Your task to perform on an android device: open app "Facebook Lite" (install if not already installed) and enter user name: "suppers@inbox.com" and password: "downplayed" Image 0: 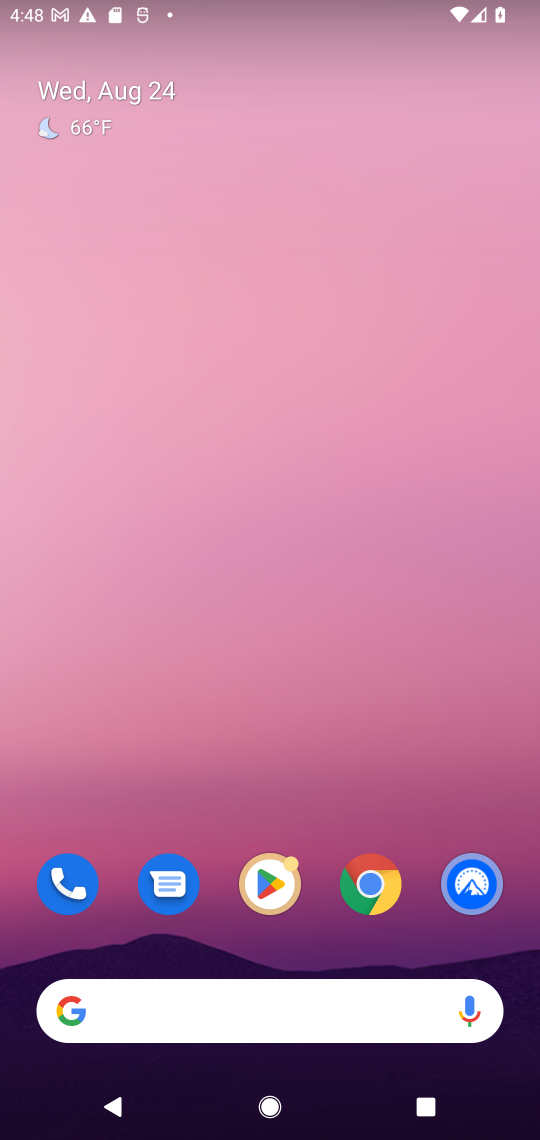
Step 0: click (262, 872)
Your task to perform on an android device: open app "Facebook Lite" (install if not already installed) and enter user name: "suppers@inbox.com" and password: "downplayed" Image 1: 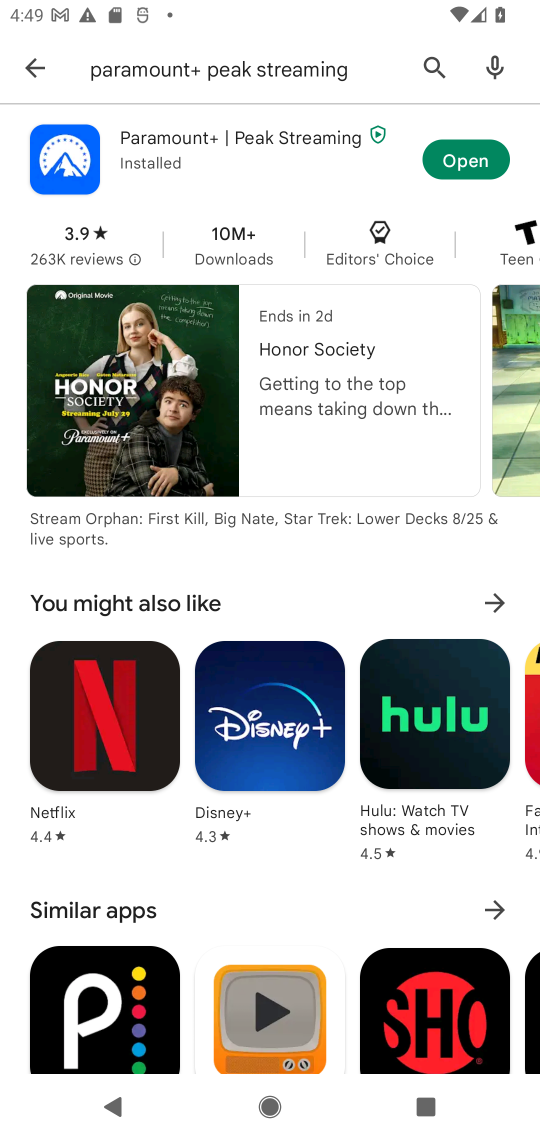
Step 1: press home button
Your task to perform on an android device: open app "Facebook Lite" (install if not already installed) and enter user name: "suppers@inbox.com" and password: "downplayed" Image 2: 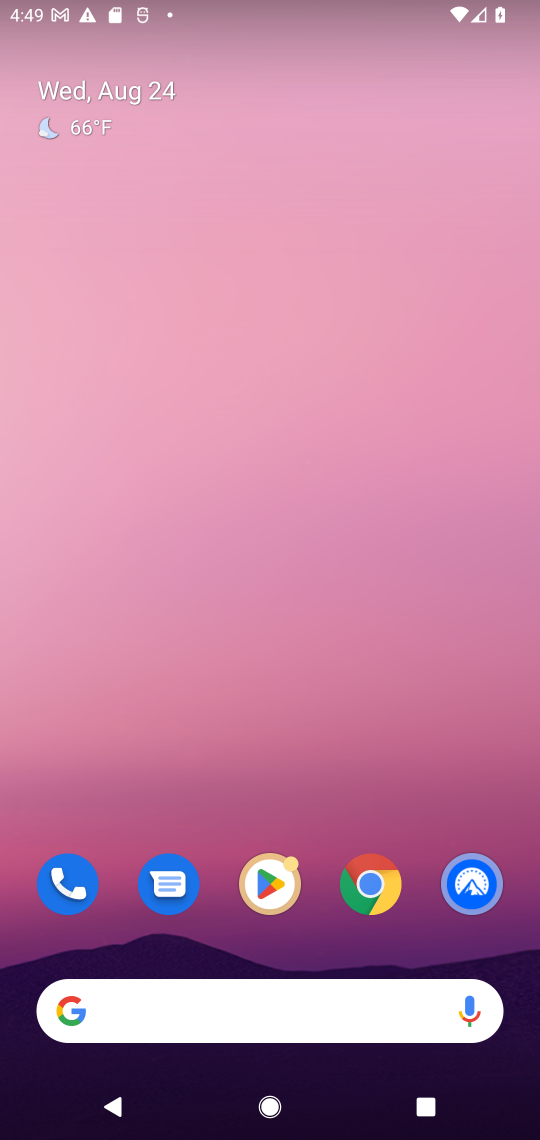
Step 2: click (277, 875)
Your task to perform on an android device: open app "Facebook Lite" (install if not already installed) and enter user name: "suppers@inbox.com" and password: "downplayed" Image 3: 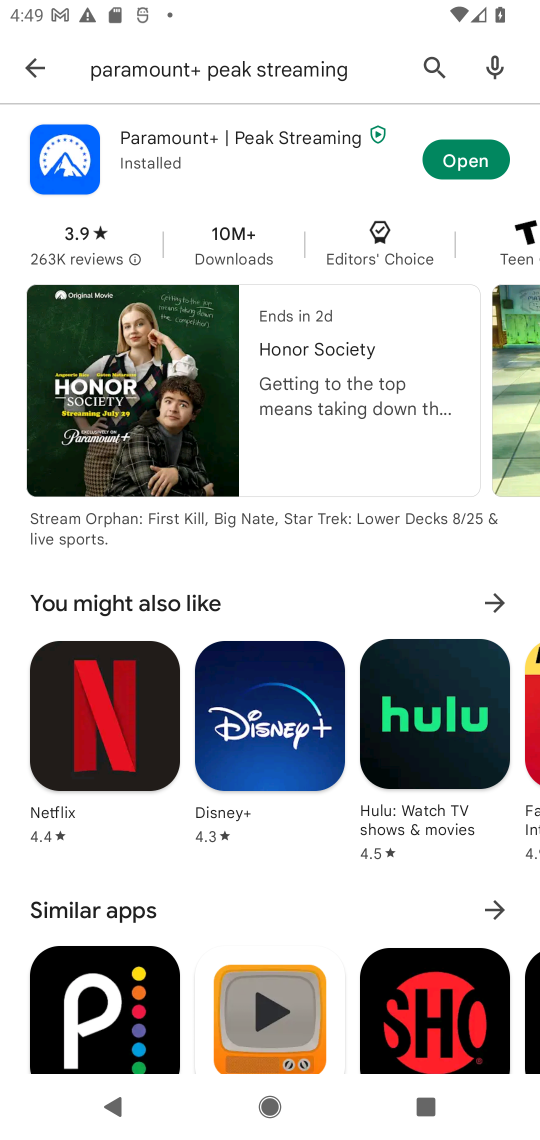
Step 3: click (27, 67)
Your task to perform on an android device: open app "Facebook Lite" (install if not already installed) and enter user name: "suppers@inbox.com" and password: "downplayed" Image 4: 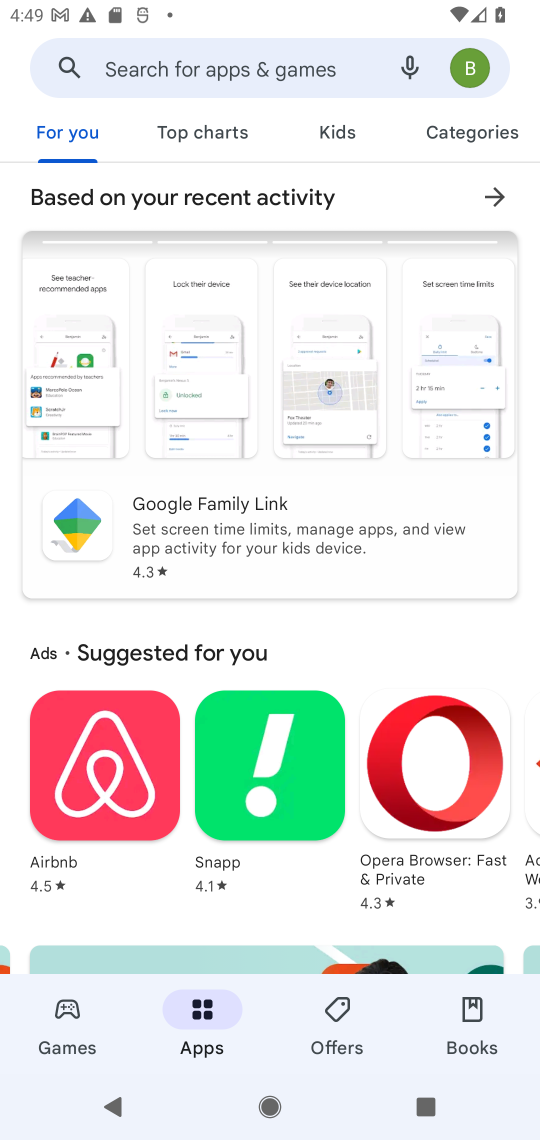
Step 4: click (175, 78)
Your task to perform on an android device: open app "Facebook Lite" (install if not already installed) and enter user name: "suppers@inbox.com" and password: "downplayed" Image 5: 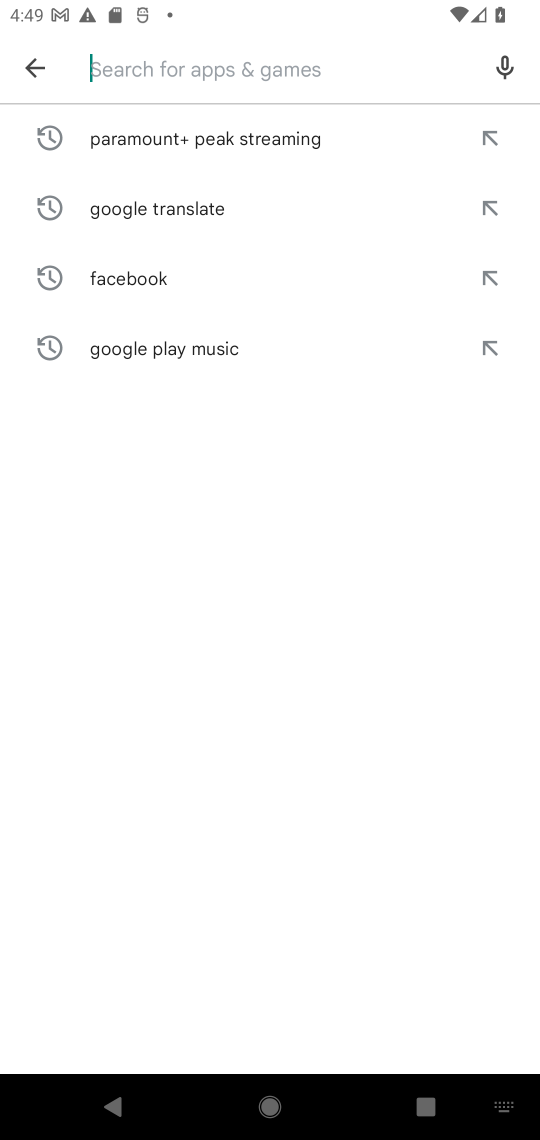
Step 5: type "Facebook Lite"
Your task to perform on an android device: open app "Facebook Lite" (install if not already installed) and enter user name: "suppers@inbox.com" and password: "downplayed" Image 6: 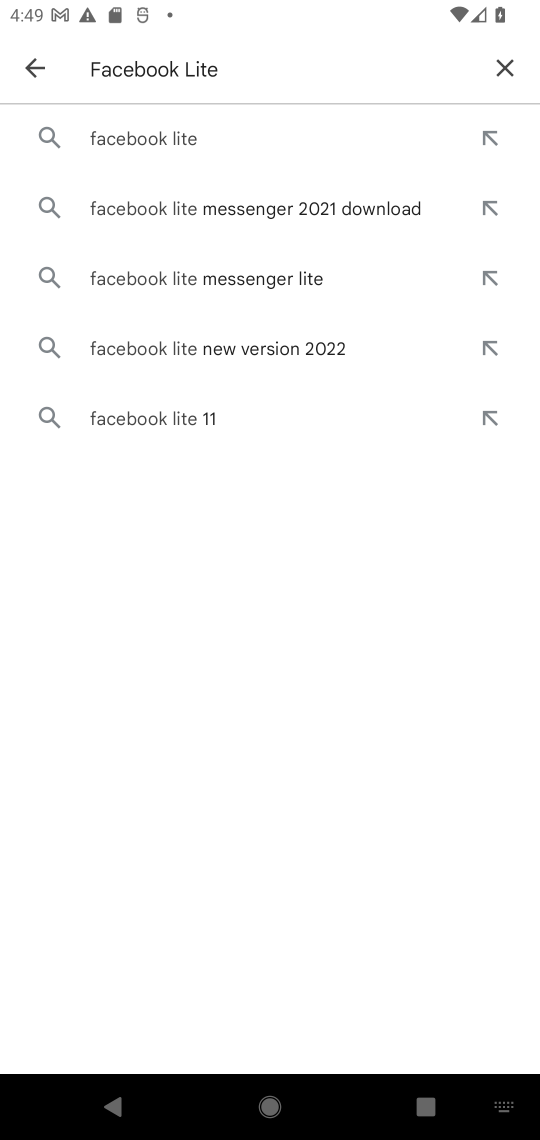
Step 6: click (181, 132)
Your task to perform on an android device: open app "Facebook Lite" (install if not already installed) and enter user name: "suppers@inbox.com" and password: "downplayed" Image 7: 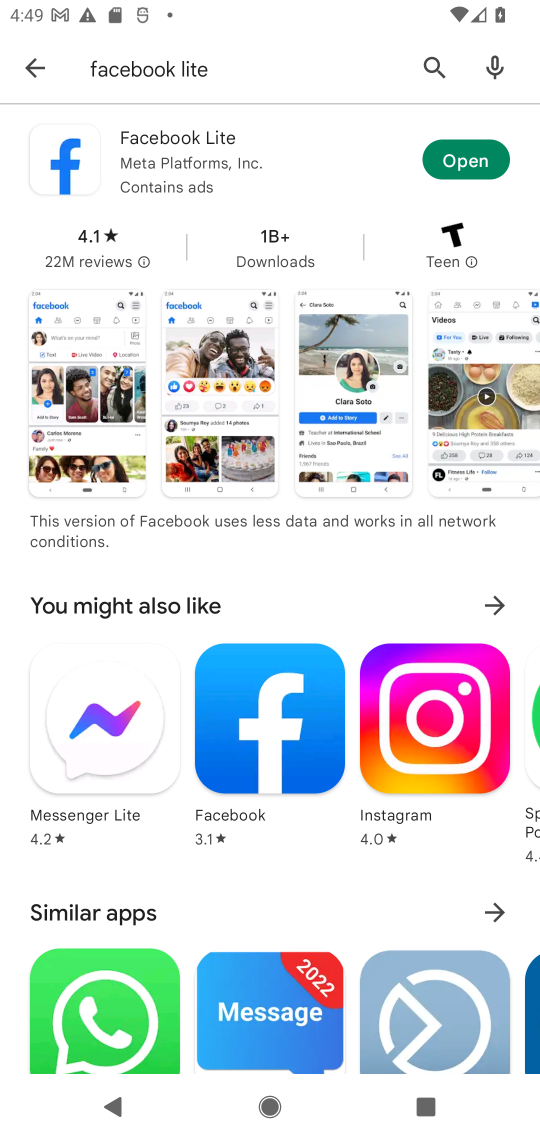
Step 7: click (472, 166)
Your task to perform on an android device: open app "Facebook Lite" (install if not already installed) and enter user name: "suppers@inbox.com" and password: "downplayed" Image 8: 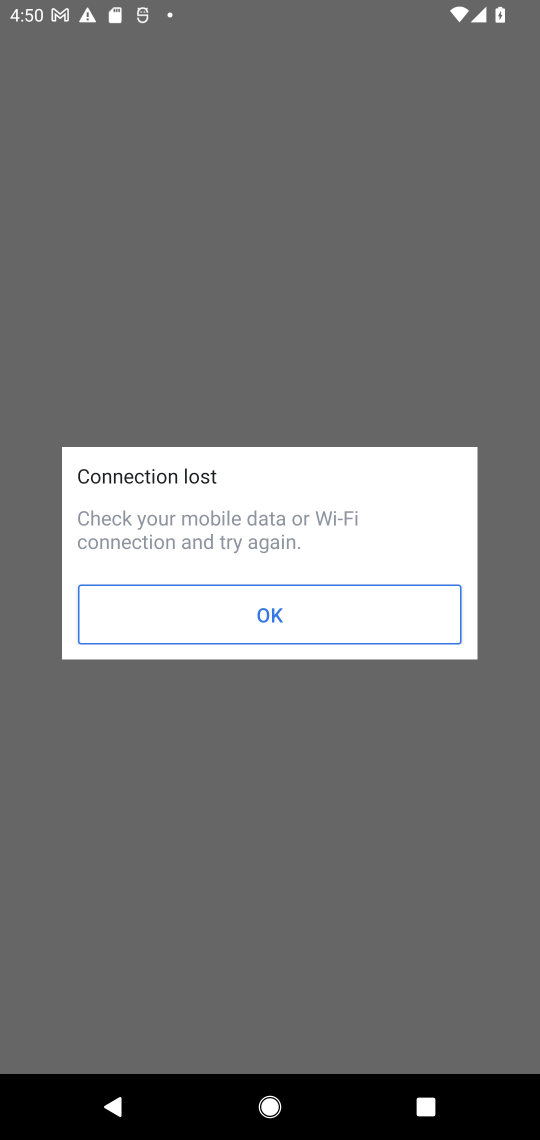
Step 8: task complete